Your task to perform on an android device: open sync settings in chrome Image 0: 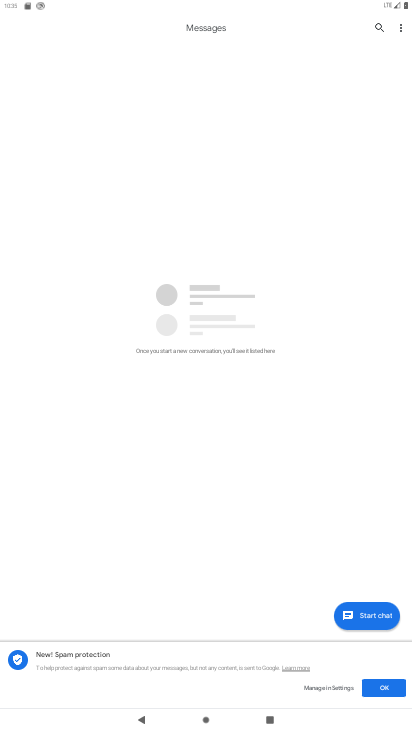
Step 0: press home button
Your task to perform on an android device: open sync settings in chrome Image 1: 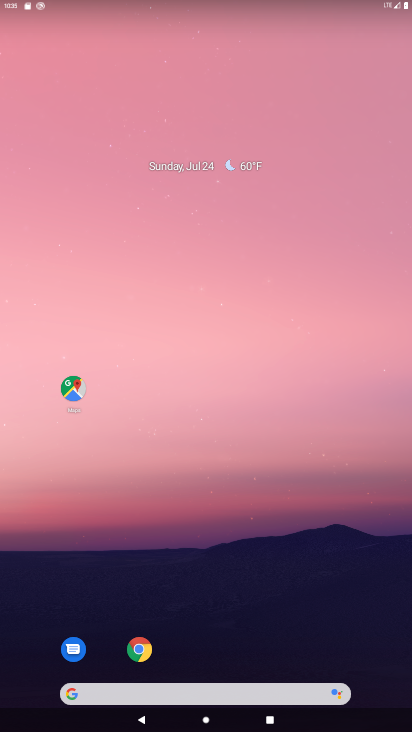
Step 1: drag from (232, 654) to (208, 192)
Your task to perform on an android device: open sync settings in chrome Image 2: 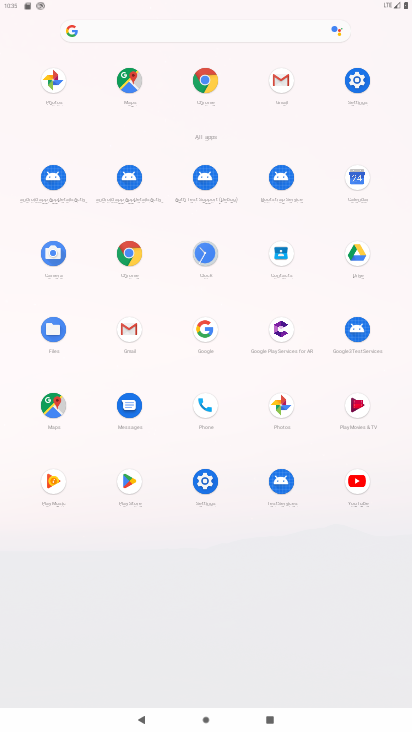
Step 2: click (207, 84)
Your task to perform on an android device: open sync settings in chrome Image 3: 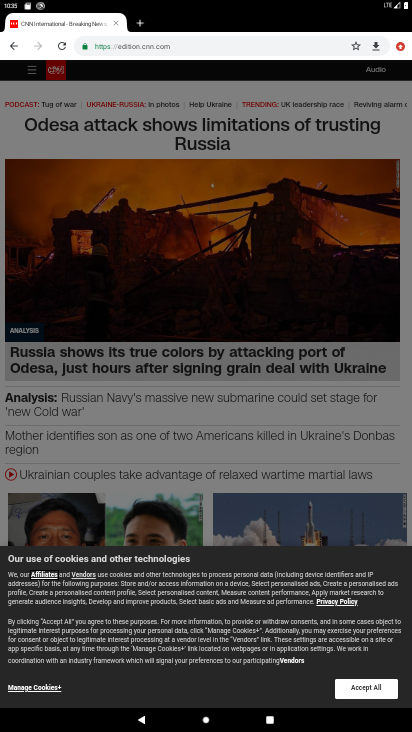
Step 3: click (404, 41)
Your task to perform on an android device: open sync settings in chrome Image 4: 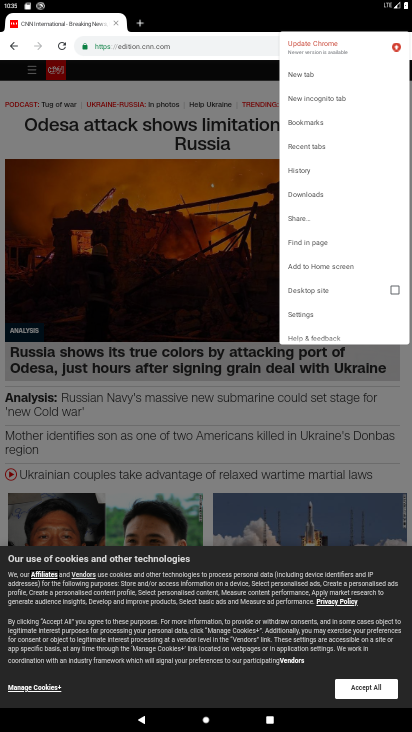
Step 4: click (342, 314)
Your task to perform on an android device: open sync settings in chrome Image 5: 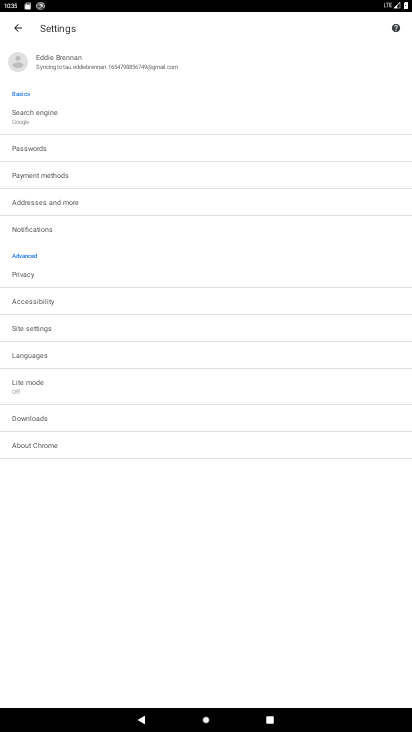
Step 5: click (85, 73)
Your task to perform on an android device: open sync settings in chrome Image 6: 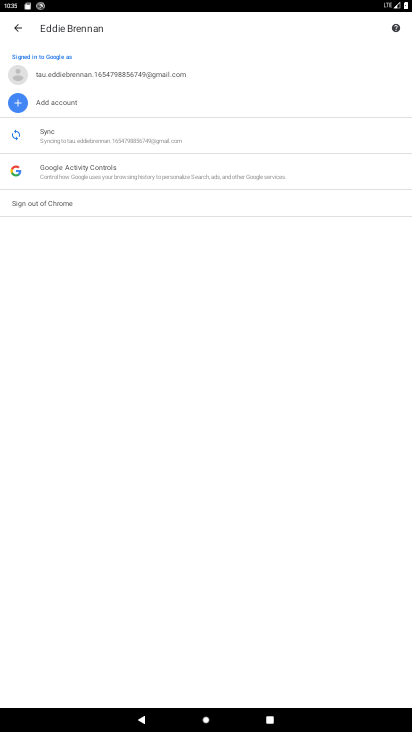
Step 6: click (103, 129)
Your task to perform on an android device: open sync settings in chrome Image 7: 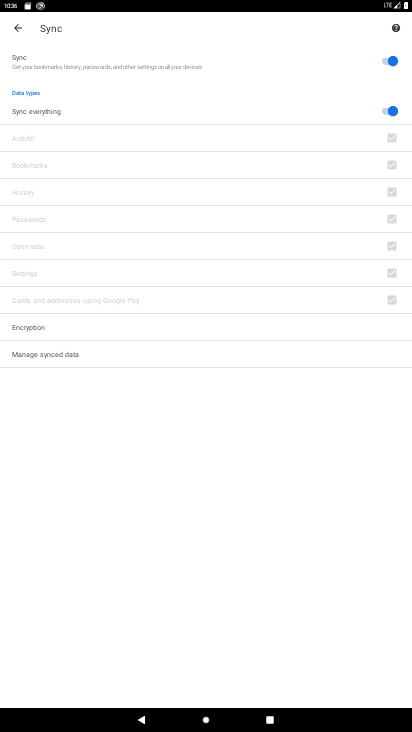
Step 7: task complete